Your task to perform on an android device: check the backup settings in the google photos Image 0: 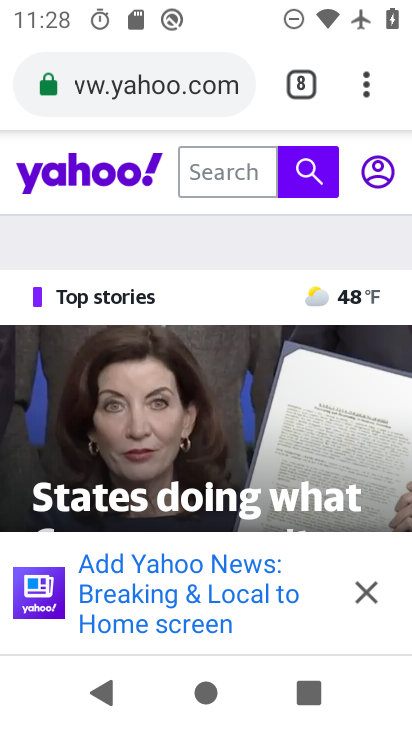
Step 0: press home button
Your task to perform on an android device: check the backup settings in the google photos Image 1: 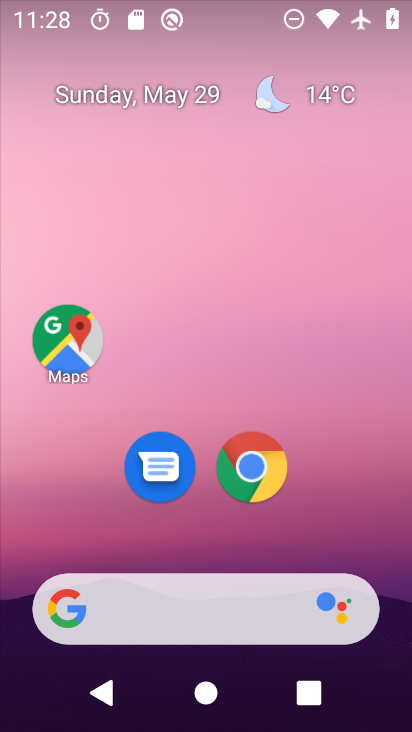
Step 1: drag from (212, 544) to (200, 145)
Your task to perform on an android device: check the backup settings in the google photos Image 2: 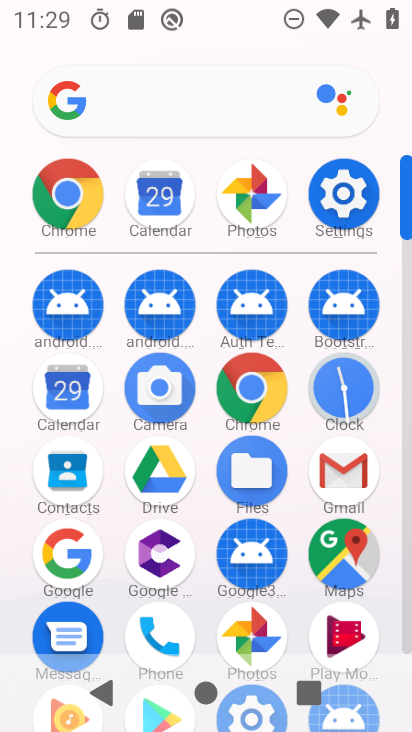
Step 2: click (245, 210)
Your task to perform on an android device: check the backup settings in the google photos Image 3: 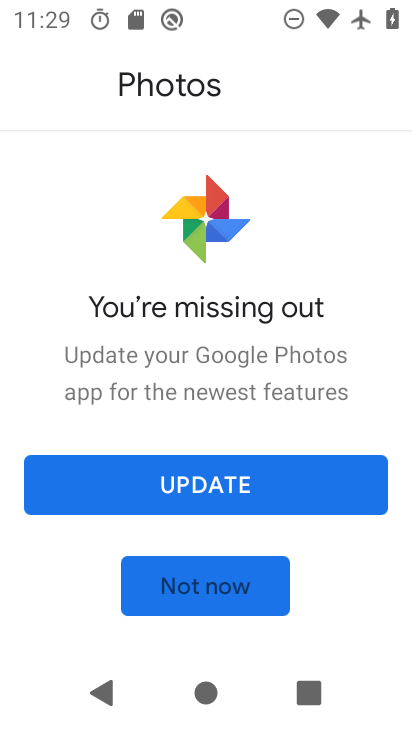
Step 3: click (272, 605)
Your task to perform on an android device: check the backup settings in the google photos Image 4: 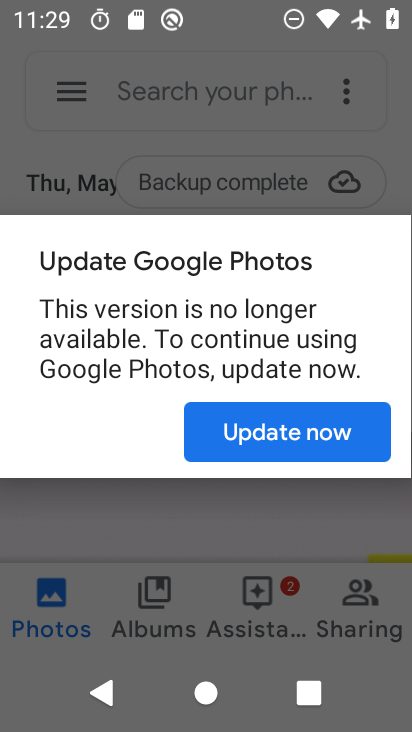
Step 4: click (271, 419)
Your task to perform on an android device: check the backup settings in the google photos Image 5: 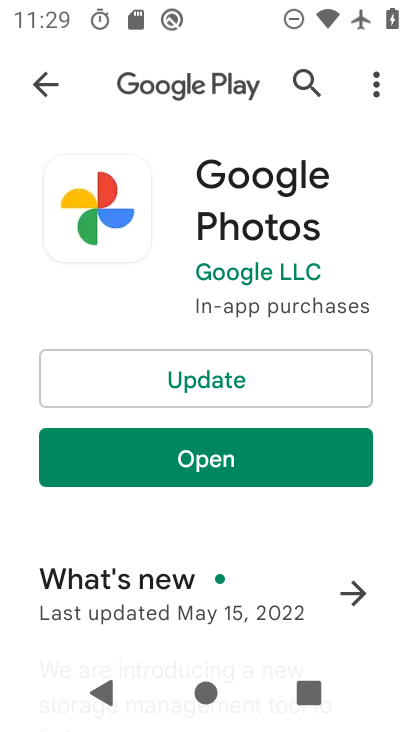
Step 5: click (240, 458)
Your task to perform on an android device: check the backup settings in the google photos Image 6: 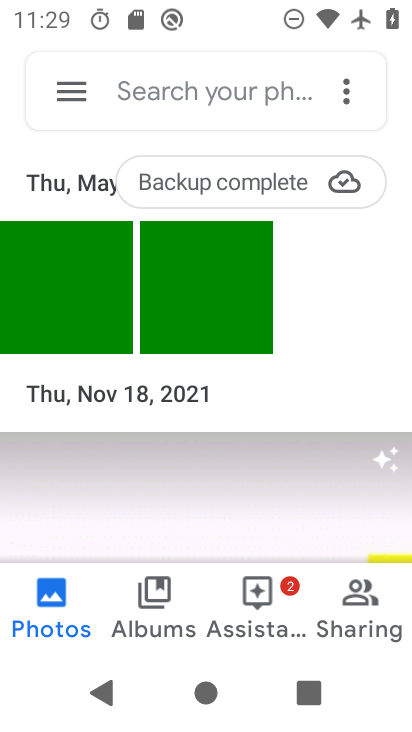
Step 6: click (76, 94)
Your task to perform on an android device: check the backup settings in the google photos Image 7: 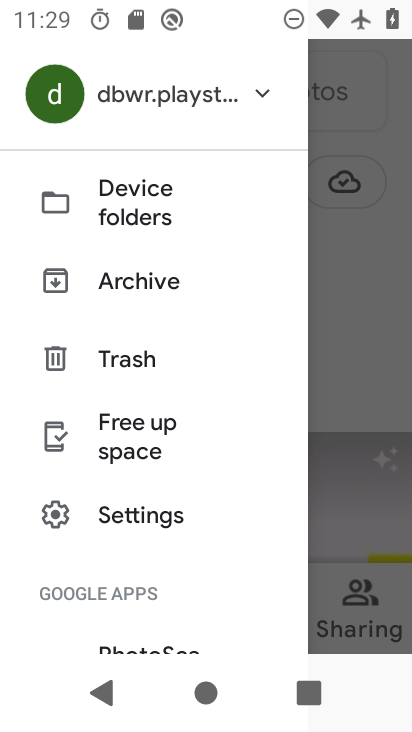
Step 7: drag from (154, 385) to (154, 309)
Your task to perform on an android device: check the backup settings in the google photos Image 8: 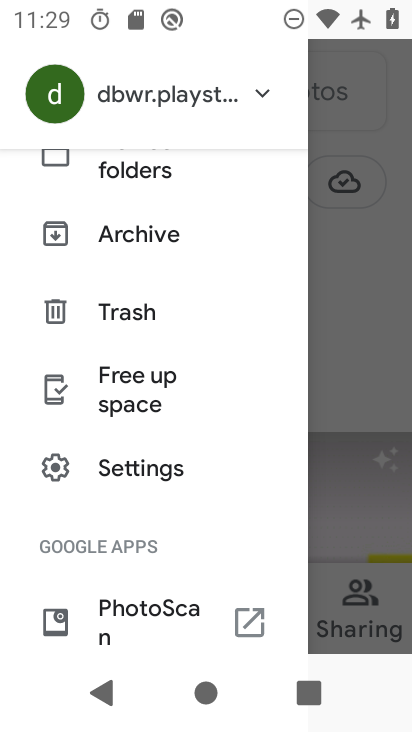
Step 8: drag from (148, 249) to (163, 404)
Your task to perform on an android device: check the backup settings in the google photos Image 9: 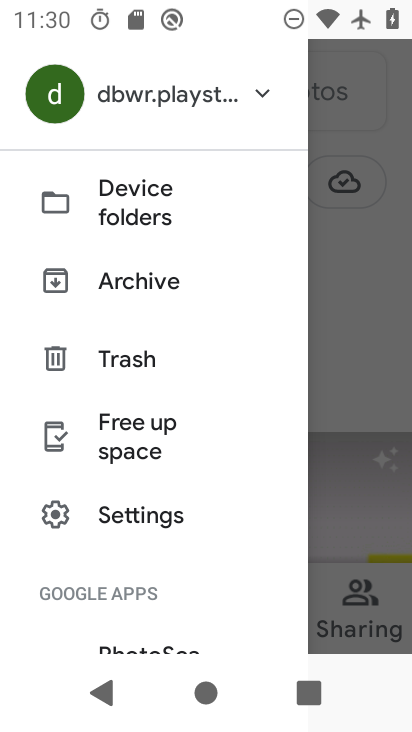
Step 9: drag from (164, 516) to (156, 241)
Your task to perform on an android device: check the backup settings in the google photos Image 10: 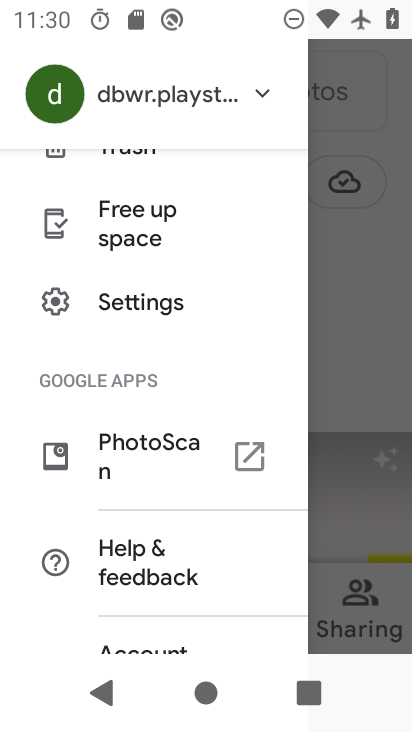
Step 10: click (147, 302)
Your task to perform on an android device: check the backup settings in the google photos Image 11: 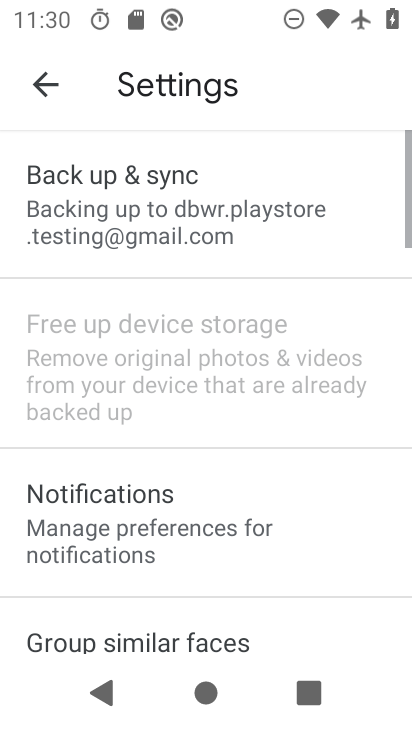
Step 11: click (150, 230)
Your task to perform on an android device: check the backup settings in the google photos Image 12: 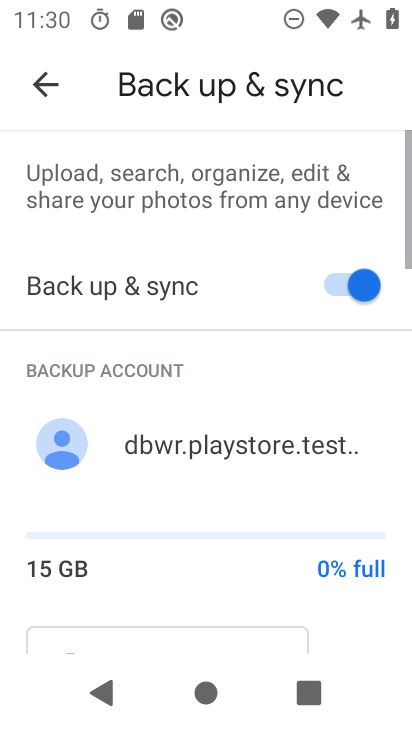
Step 12: drag from (197, 499) to (183, 226)
Your task to perform on an android device: check the backup settings in the google photos Image 13: 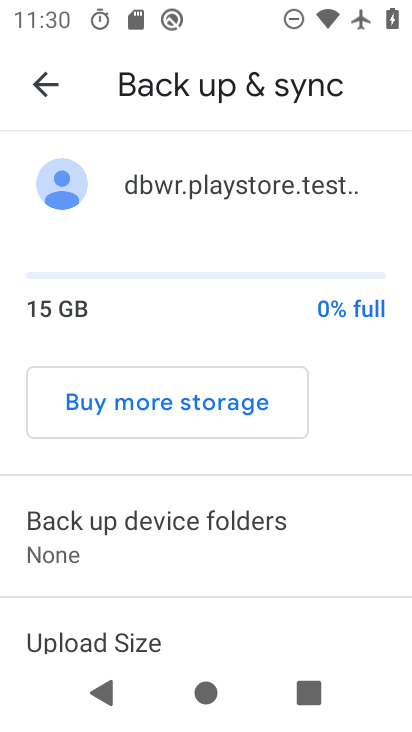
Step 13: drag from (175, 535) to (193, 241)
Your task to perform on an android device: check the backup settings in the google photos Image 14: 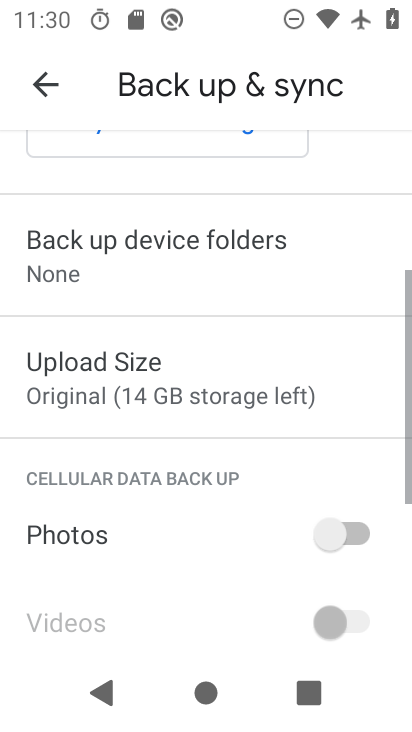
Step 14: drag from (205, 563) to (204, 325)
Your task to perform on an android device: check the backup settings in the google photos Image 15: 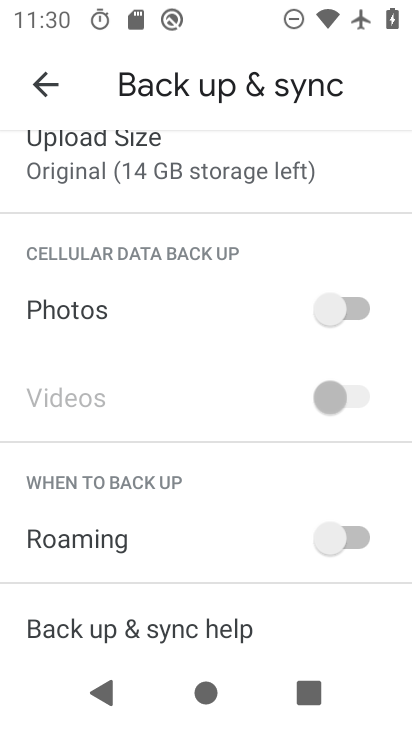
Step 15: click (164, 165)
Your task to perform on an android device: check the backup settings in the google photos Image 16: 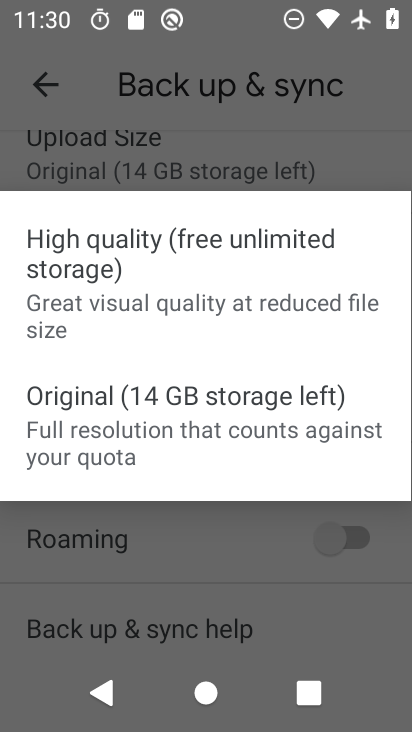
Step 16: task complete